Your task to perform on an android device: toggle notification dots Image 0: 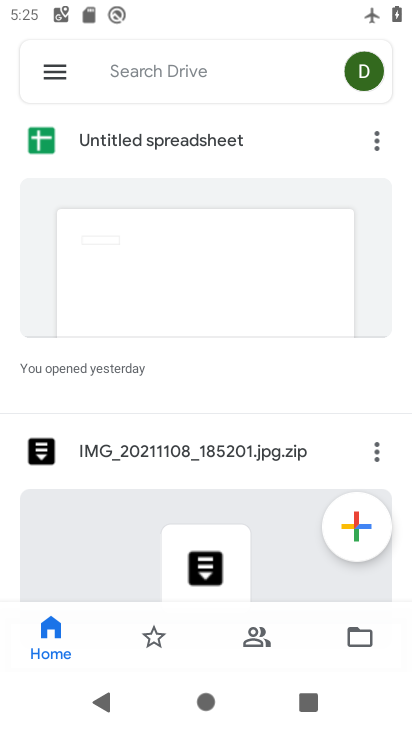
Step 0: press home button
Your task to perform on an android device: toggle notification dots Image 1: 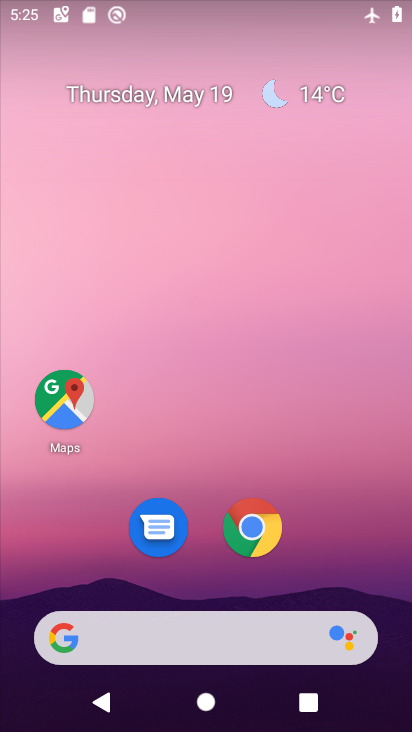
Step 1: drag from (320, 513) to (296, 68)
Your task to perform on an android device: toggle notification dots Image 2: 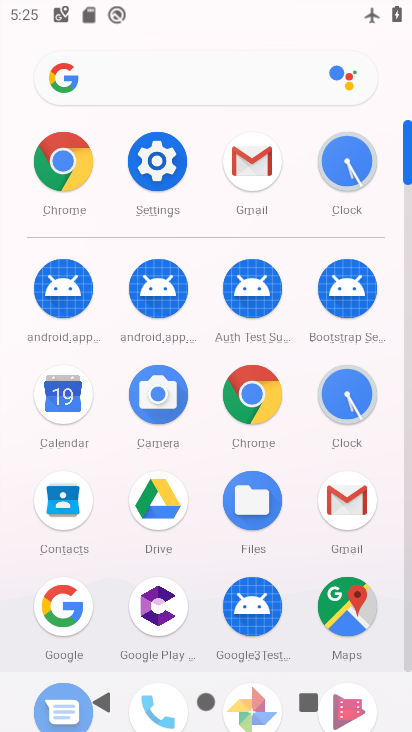
Step 2: click (167, 167)
Your task to perform on an android device: toggle notification dots Image 3: 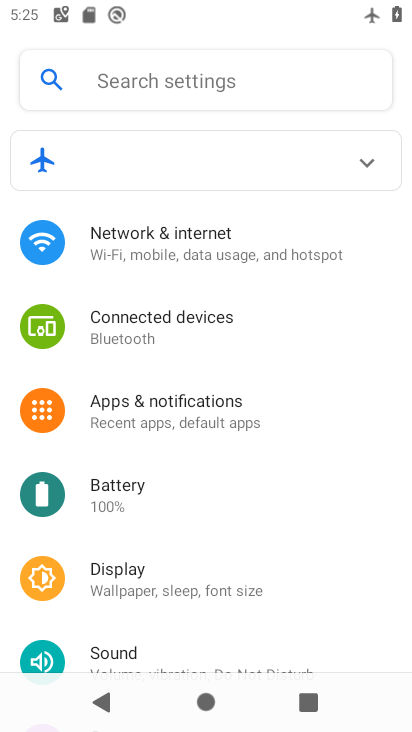
Step 3: click (239, 423)
Your task to perform on an android device: toggle notification dots Image 4: 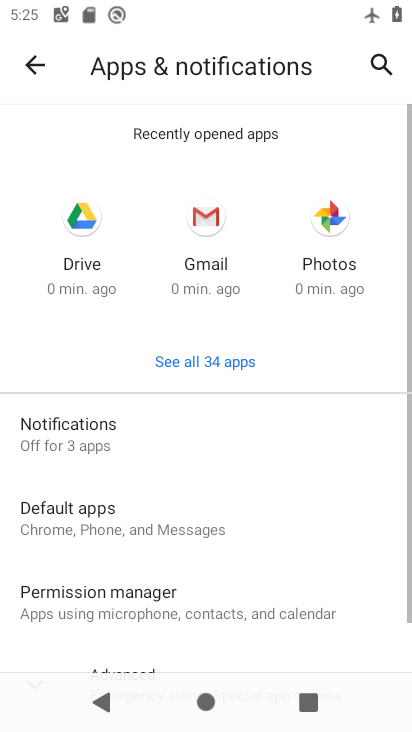
Step 4: click (171, 445)
Your task to perform on an android device: toggle notification dots Image 5: 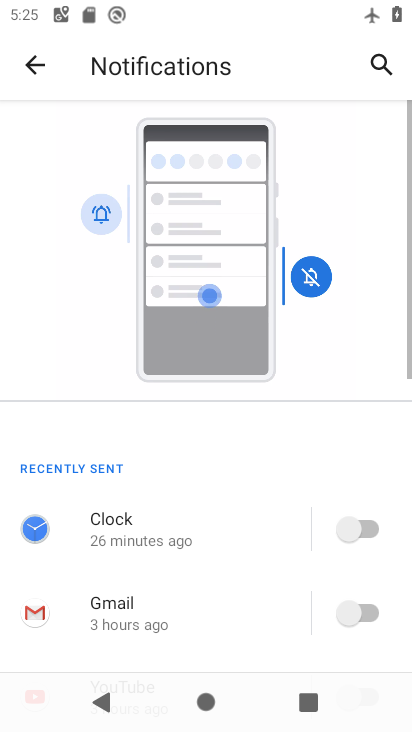
Step 5: drag from (270, 584) to (214, 97)
Your task to perform on an android device: toggle notification dots Image 6: 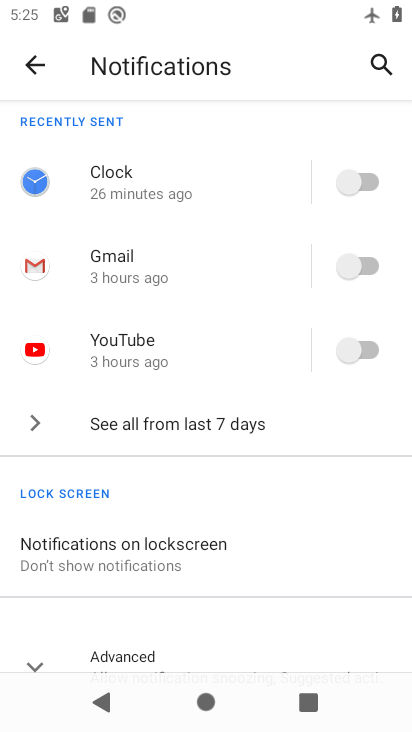
Step 6: click (201, 635)
Your task to perform on an android device: toggle notification dots Image 7: 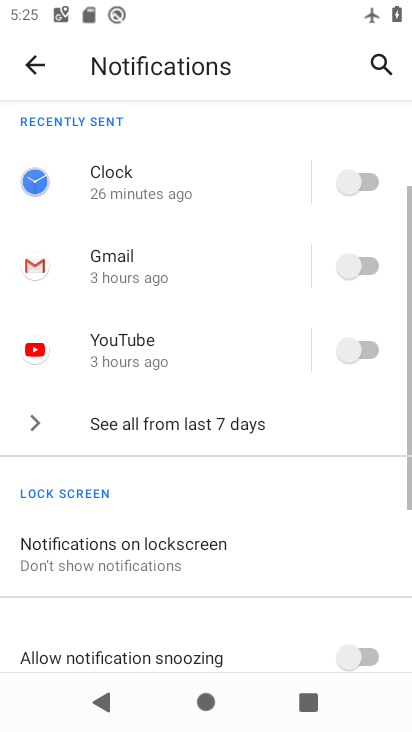
Step 7: drag from (234, 550) to (221, 118)
Your task to perform on an android device: toggle notification dots Image 8: 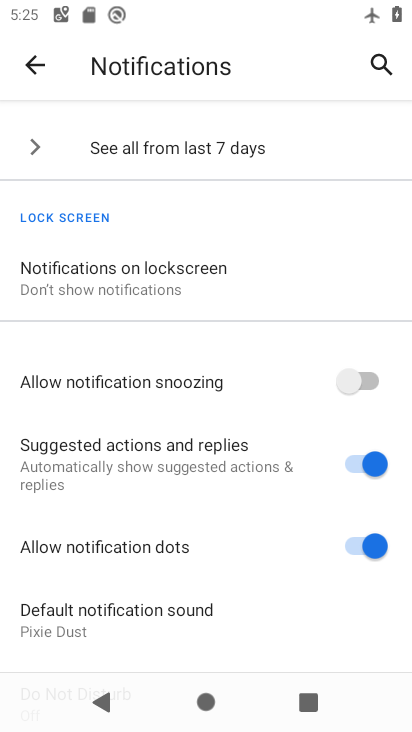
Step 8: click (370, 554)
Your task to perform on an android device: toggle notification dots Image 9: 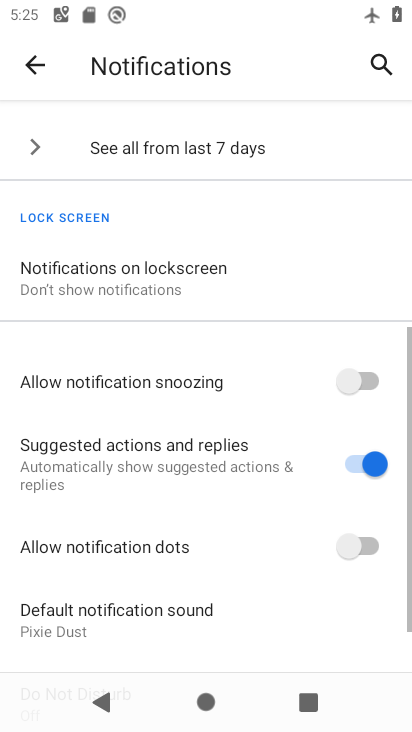
Step 9: task complete